Your task to perform on an android device: Open the calendar and show me this week's events? Image 0: 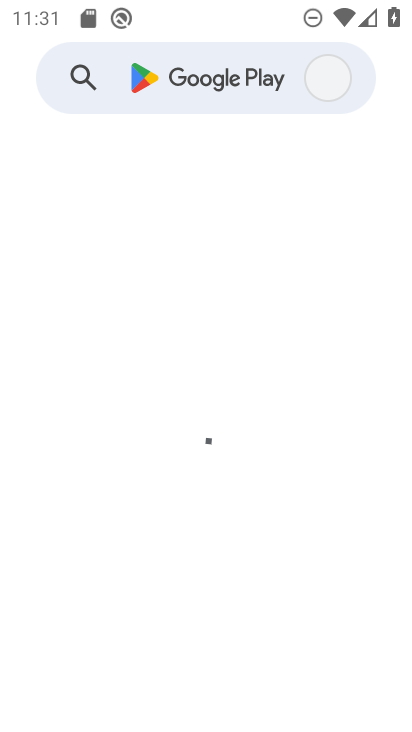
Step 0: press home button
Your task to perform on an android device: Open the calendar and show me this week's events? Image 1: 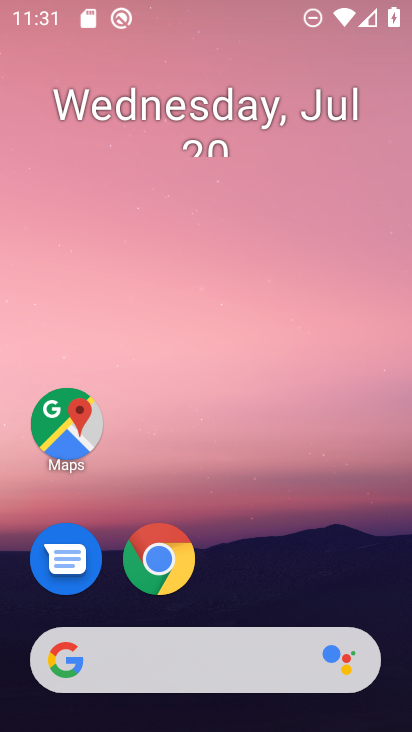
Step 1: drag from (162, 622) to (205, 233)
Your task to perform on an android device: Open the calendar and show me this week's events? Image 2: 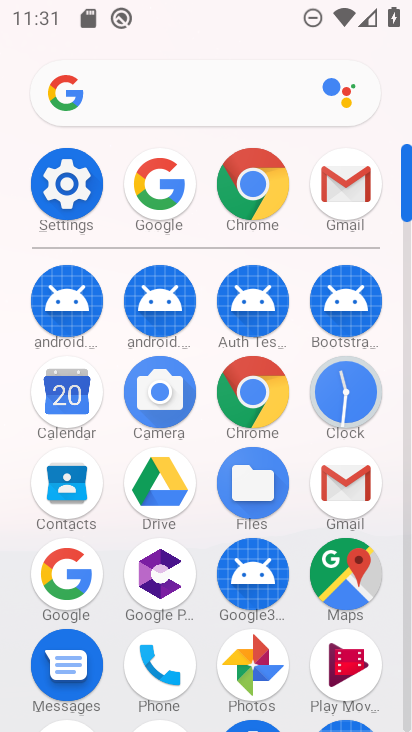
Step 2: click (84, 406)
Your task to perform on an android device: Open the calendar and show me this week's events? Image 3: 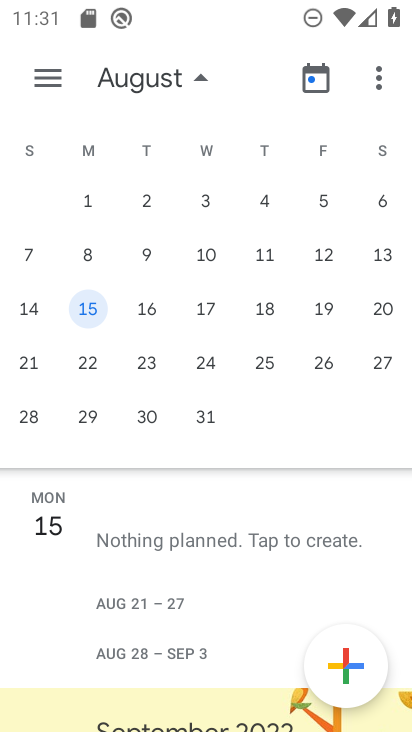
Step 3: drag from (50, 349) to (403, 379)
Your task to perform on an android device: Open the calendar and show me this week's events? Image 4: 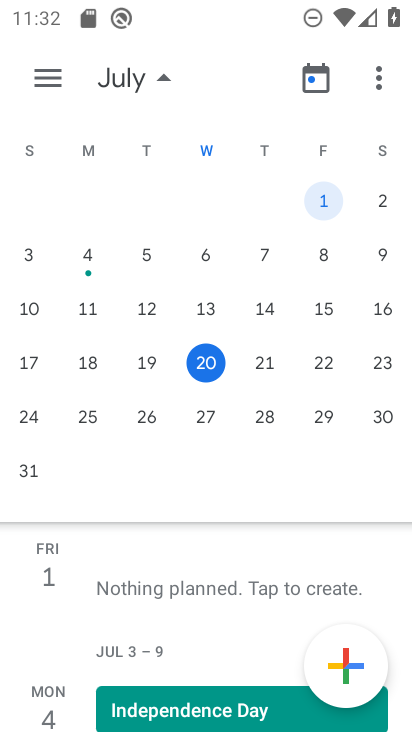
Step 4: click (207, 373)
Your task to perform on an android device: Open the calendar and show me this week's events? Image 5: 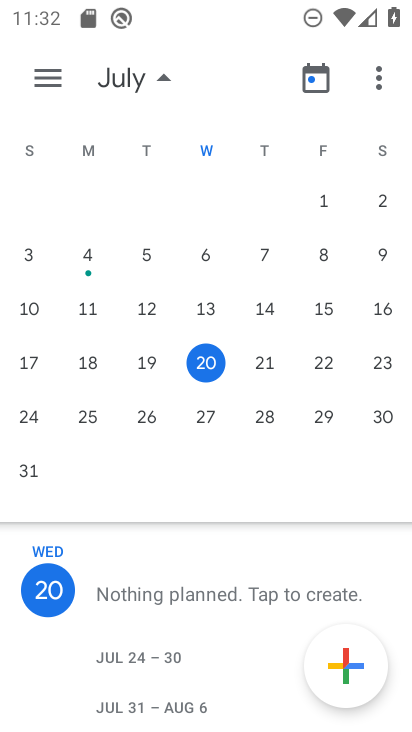
Step 5: task complete